Your task to perform on an android device: What's the weather going to be tomorrow? Image 0: 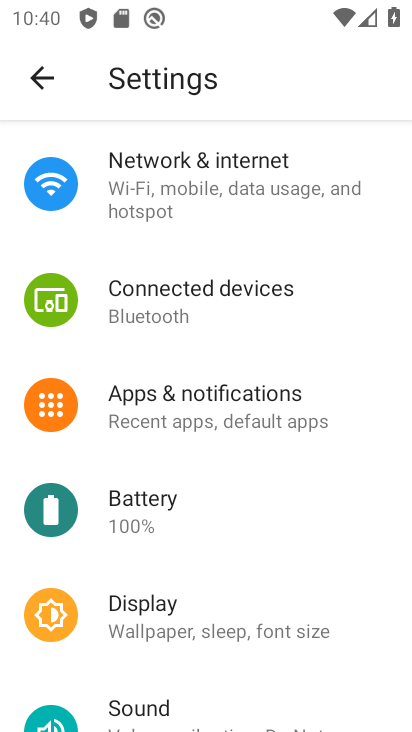
Step 0: press back button
Your task to perform on an android device: What's the weather going to be tomorrow? Image 1: 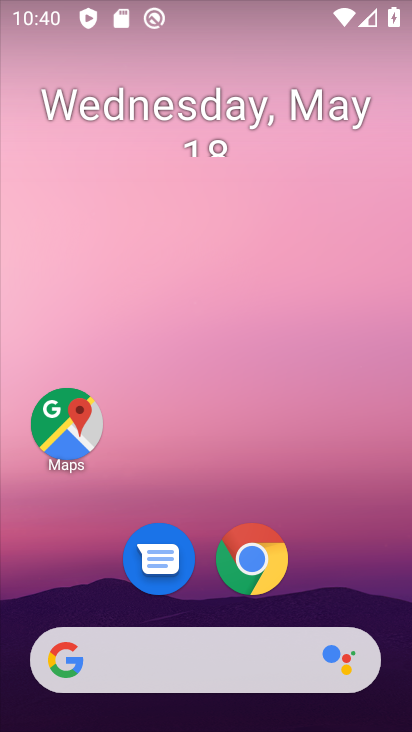
Step 1: click (111, 653)
Your task to perform on an android device: What's the weather going to be tomorrow? Image 2: 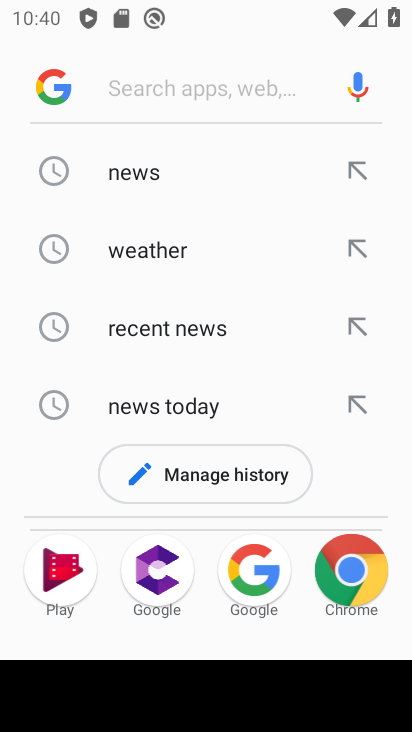
Step 2: click (164, 248)
Your task to perform on an android device: What's the weather going to be tomorrow? Image 3: 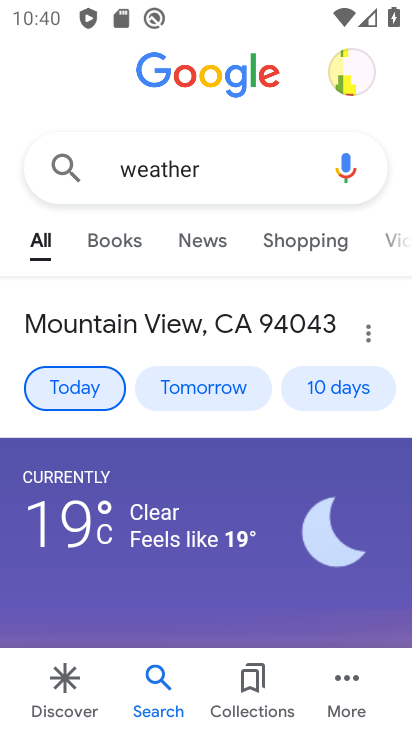
Step 3: click (228, 382)
Your task to perform on an android device: What's the weather going to be tomorrow? Image 4: 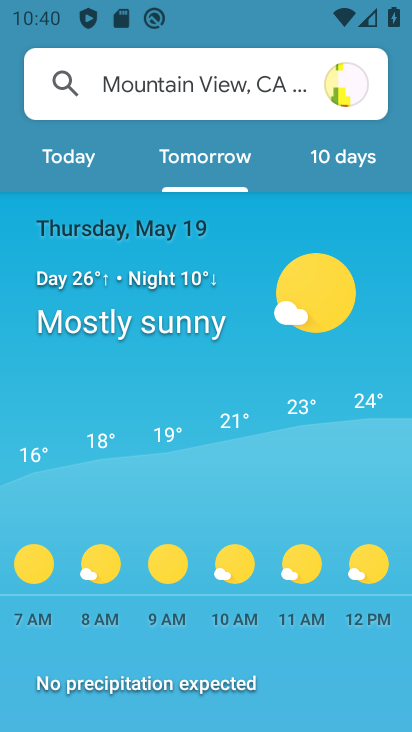
Step 4: task complete